Your task to perform on an android device: Open Maps and search for coffee Image 0: 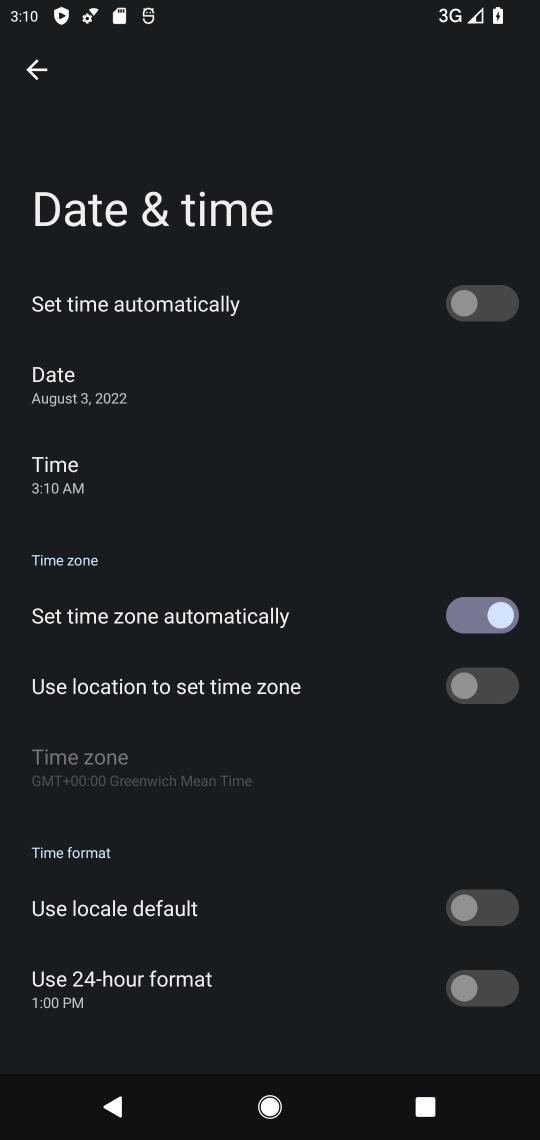
Step 0: press home button
Your task to perform on an android device: Open Maps and search for coffee Image 1: 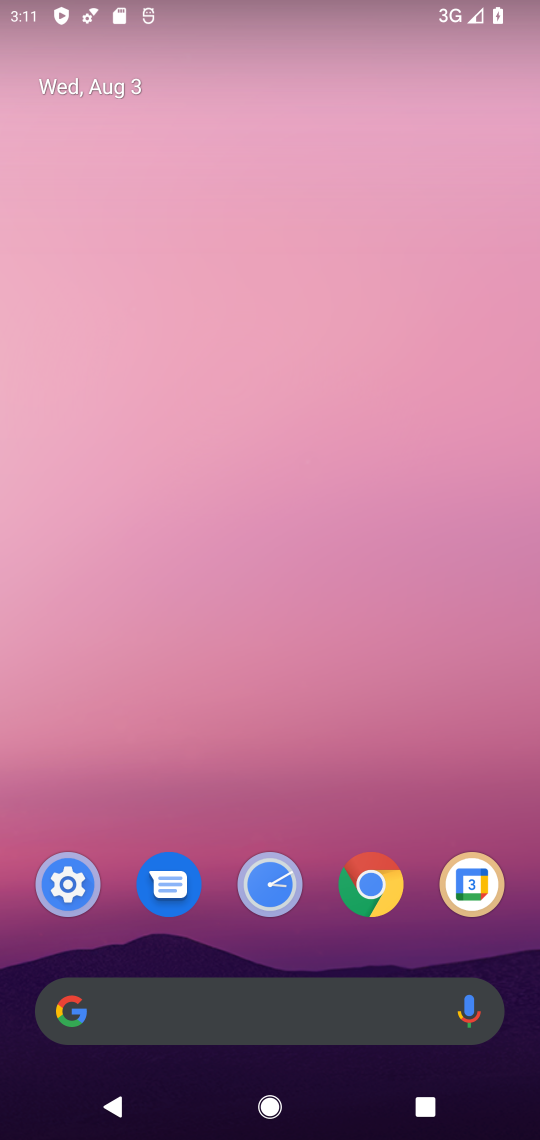
Step 1: drag from (295, 954) to (283, 265)
Your task to perform on an android device: Open Maps and search for coffee Image 2: 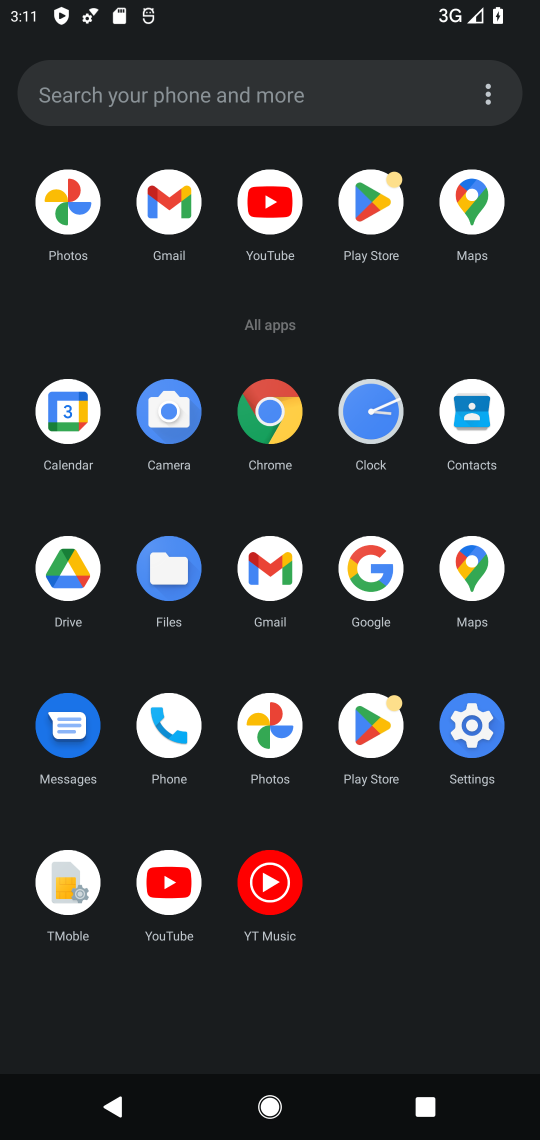
Step 2: click (468, 562)
Your task to perform on an android device: Open Maps and search for coffee Image 3: 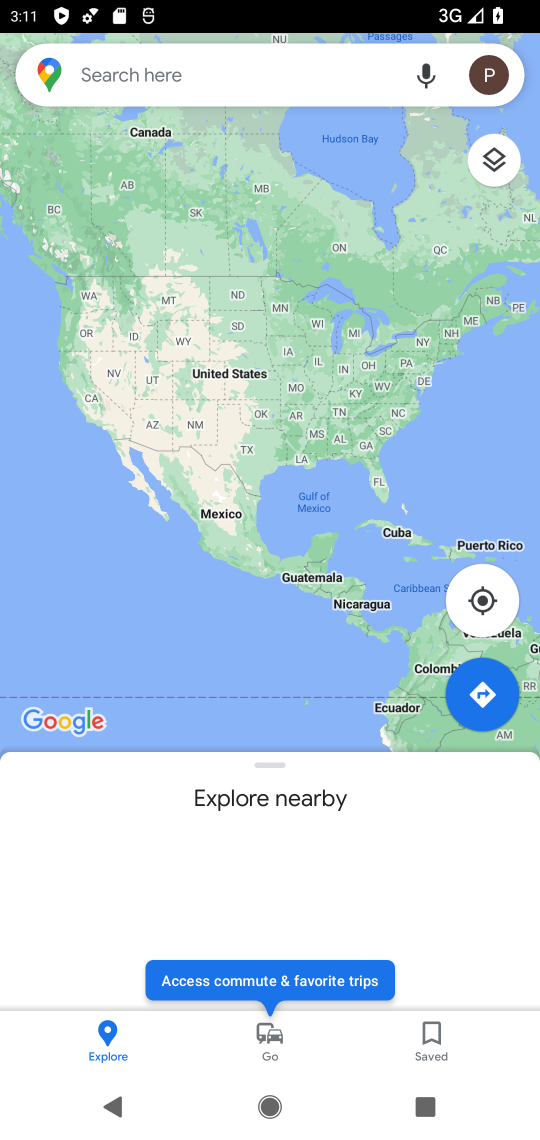
Step 3: click (344, 90)
Your task to perform on an android device: Open Maps and search for coffee Image 4: 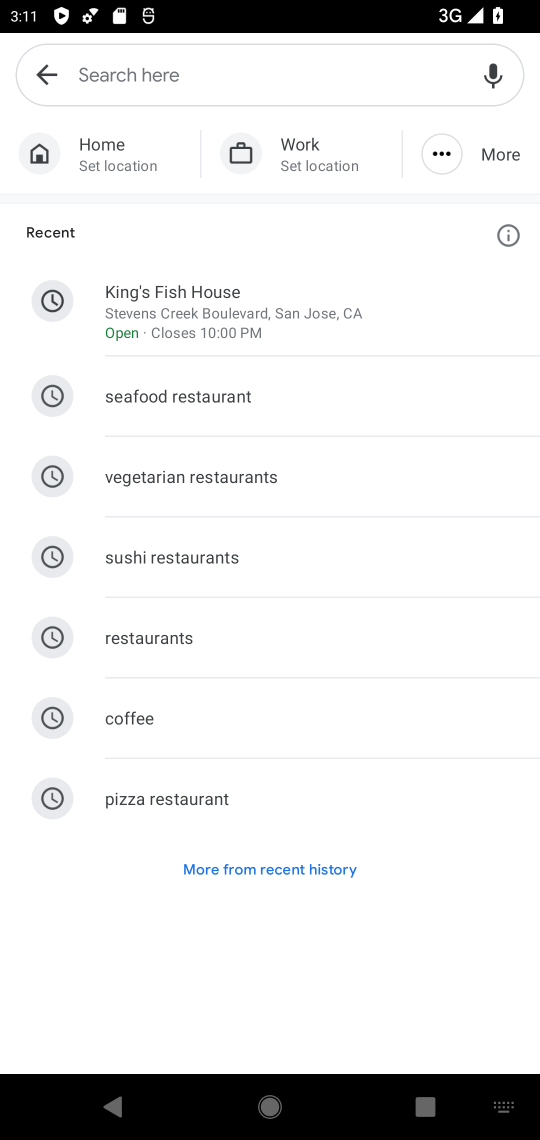
Step 4: type "coffee"
Your task to perform on an android device: Open Maps and search for coffee Image 5: 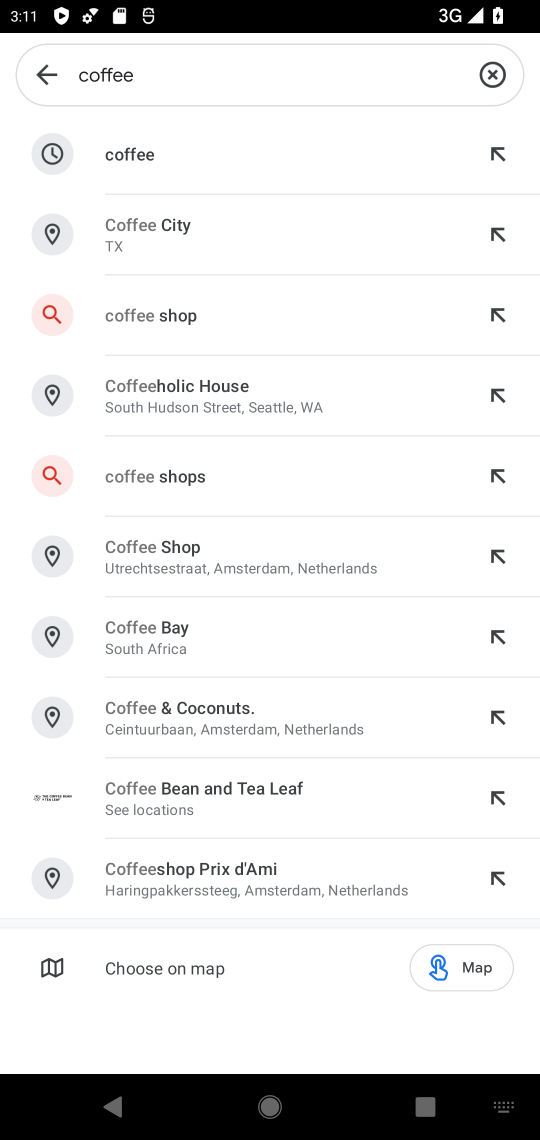
Step 5: click (118, 154)
Your task to perform on an android device: Open Maps and search for coffee Image 6: 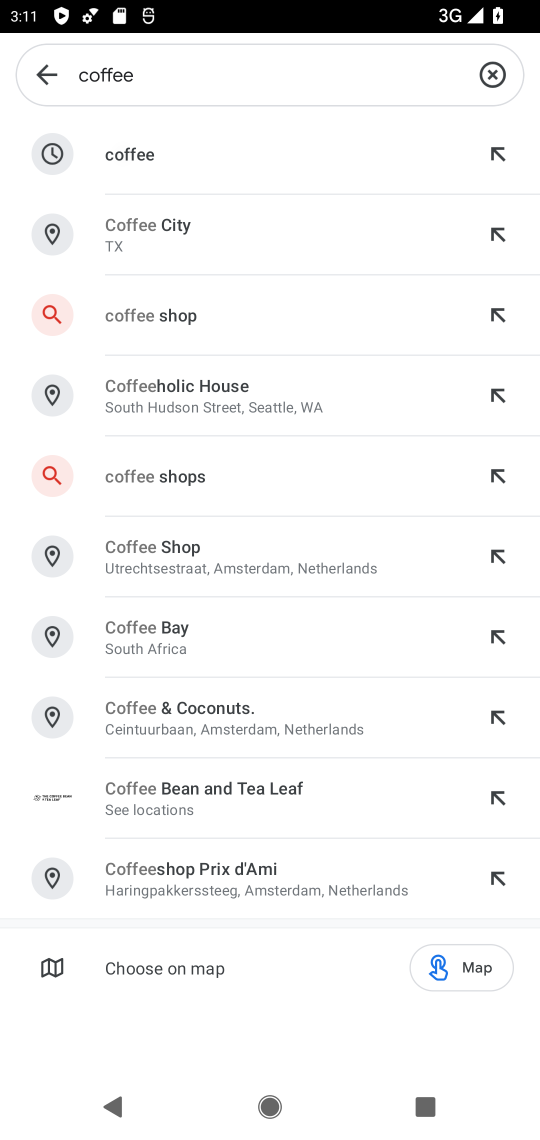
Step 6: task complete